Your task to perform on an android device: toggle data saver in the chrome app Image 0: 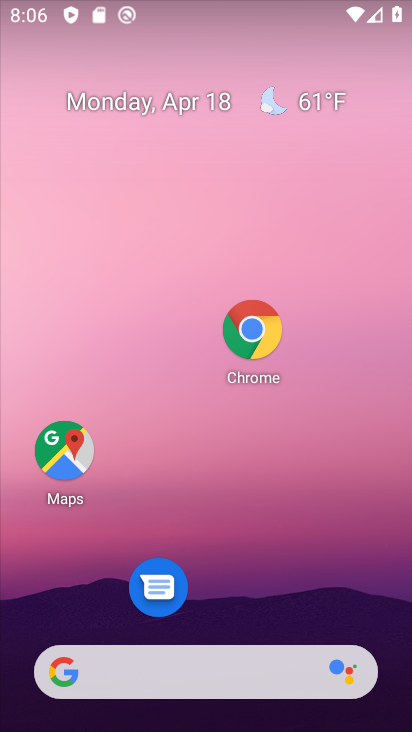
Step 0: drag from (298, 603) to (328, 266)
Your task to perform on an android device: toggle data saver in the chrome app Image 1: 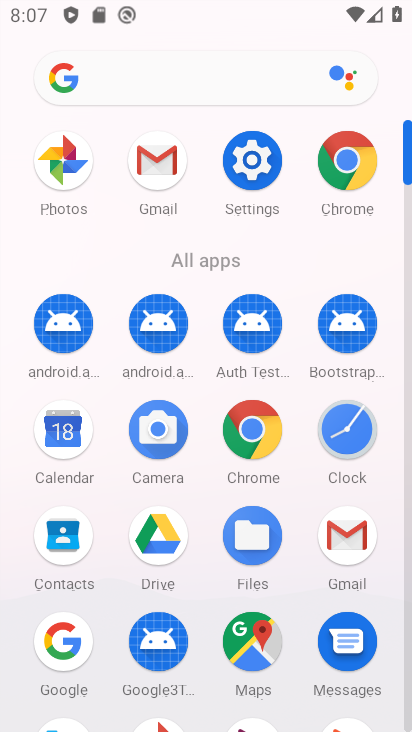
Step 1: click (338, 160)
Your task to perform on an android device: toggle data saver in the chrome app Image 2: 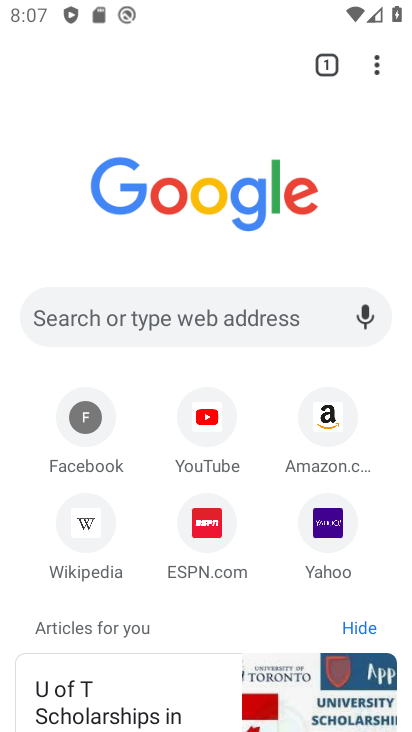
Step 2: click (376, 62)
Your task to perform on an android device: toggle data saver in the chrome app Image 3: 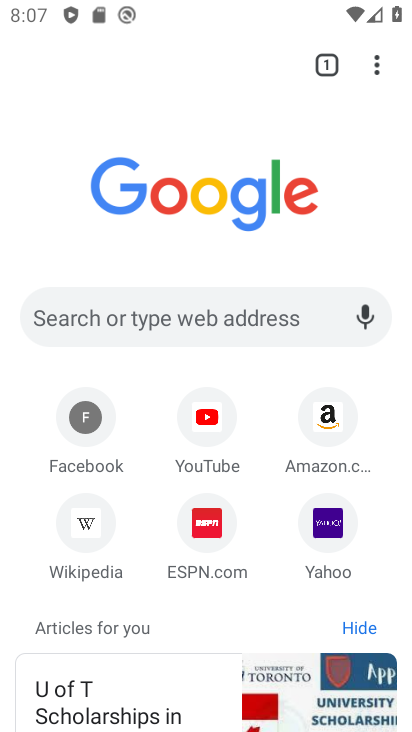
Step 3: click (377, 62)
Your task to perform on an android device: toggle data saver in the chrome app Image 4: 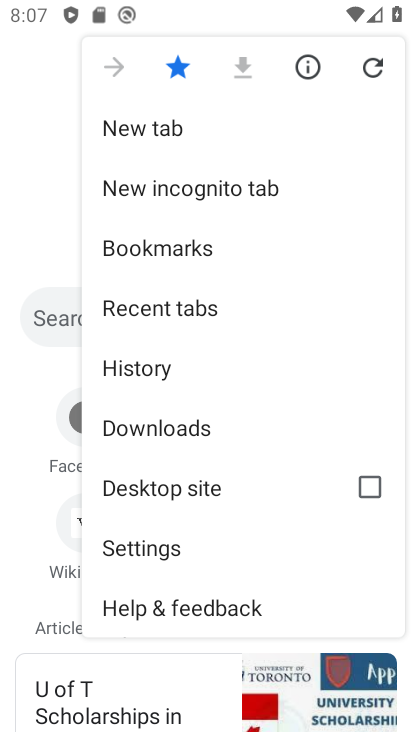
Step 4: click (163, 540)
Your task to perform on an android device: toggle data saver in the chrome app Image 5: 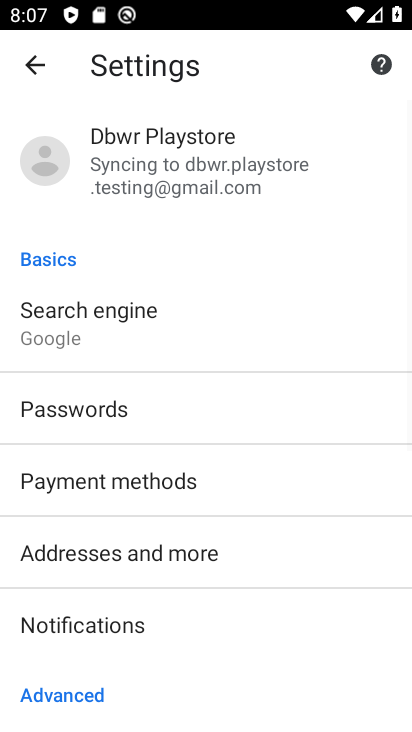
Step 5: drag from (150, 627) to (279, 132)
Your task to perform on an android device: toggle data saver in the chrome app Image 6: 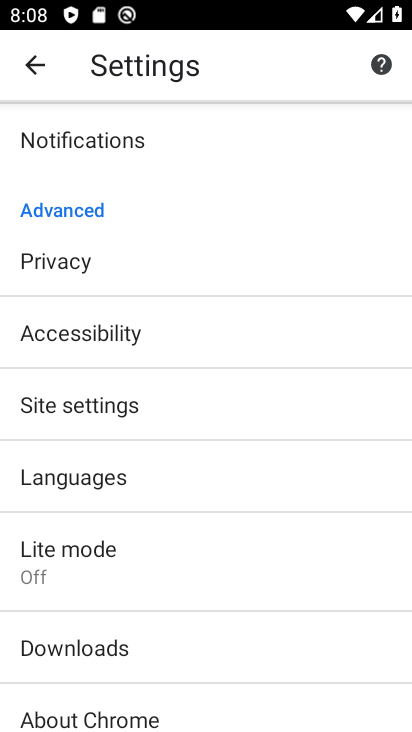
Step 6: click (106, 535)
Your task to perform on an android device: toggle data saver in the chrome app Image 7: 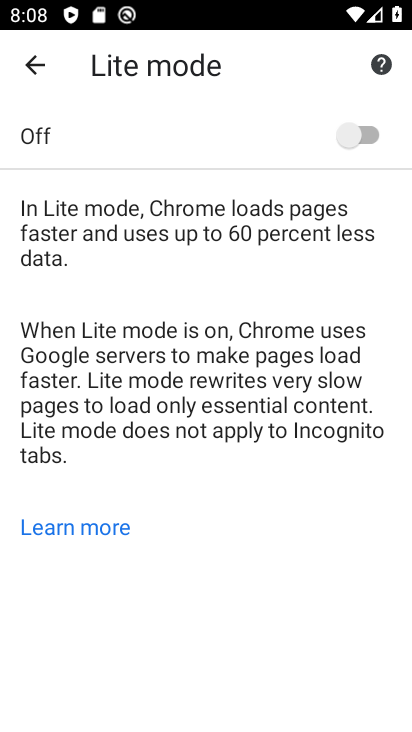
Step 7: click (358, 124)
Your task to perform on an android device: toggle data saver in the chrome app Image 8: 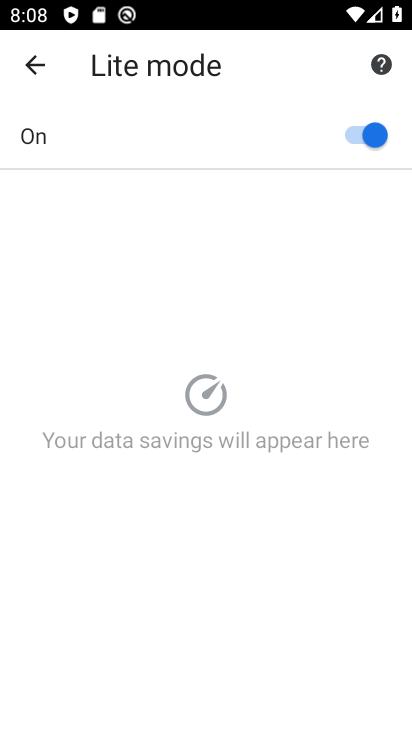
Step 8: task complete